Your task to perform on an android device: snooze an email in the gmail app Image 0: 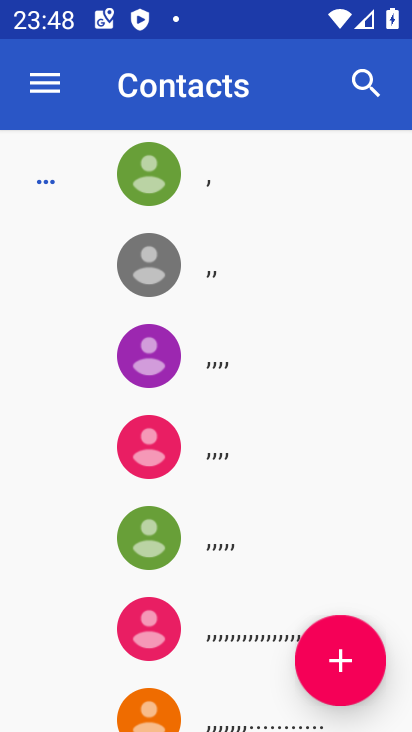
Step 0: press home button
Your task to perform on an android device: snooze an email in the gmail app Image 1: 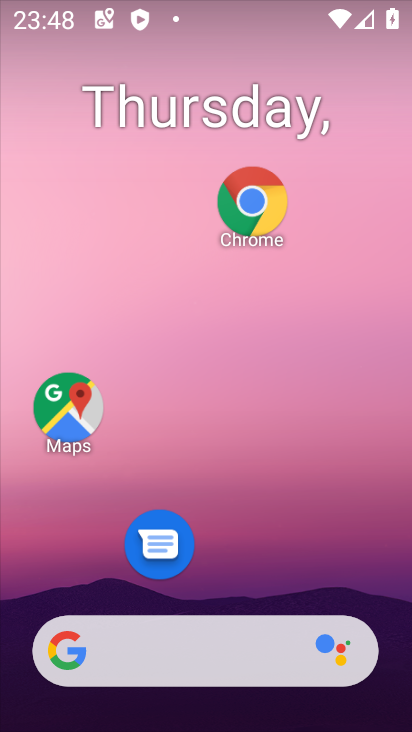
Step 1: drag from (226, 588) to (268, 49)
Your task to perform on an android device: snooze an email in the gmail app Image 2: 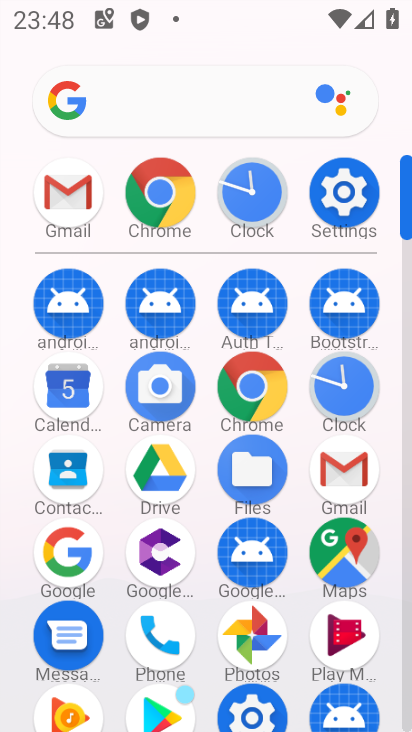
Step 2: click (346, 457)
Your task to perform on an android device: snooze an email in the gmail app Image 3: 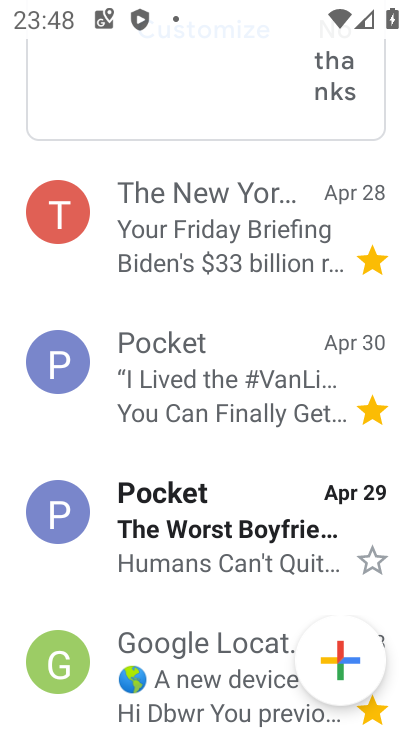
Step 3: click (47, 519)
Your task to perform on an android device: snooze an email in the gmail app Image 4: 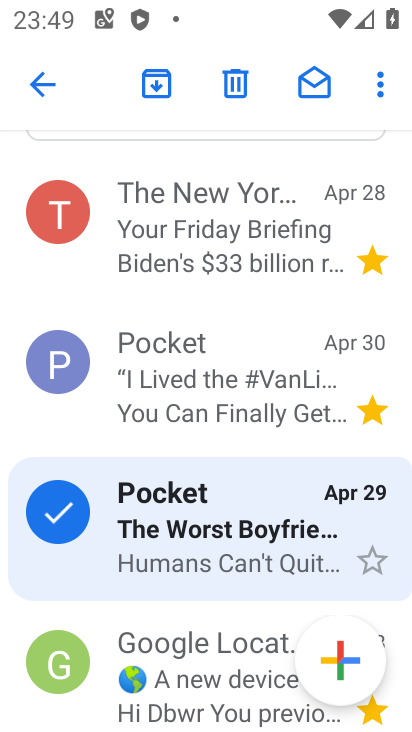
Step 4: click (377, 71)
Your task to perform on an android device: snooze an email in the gmail app Image 5: 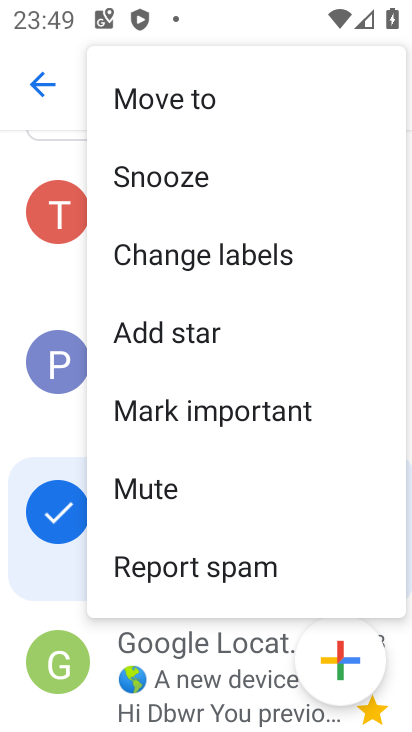
Step 5: click (207, 172)
Your task to perform on an android device: snooze an email in the gmail app Image 6: 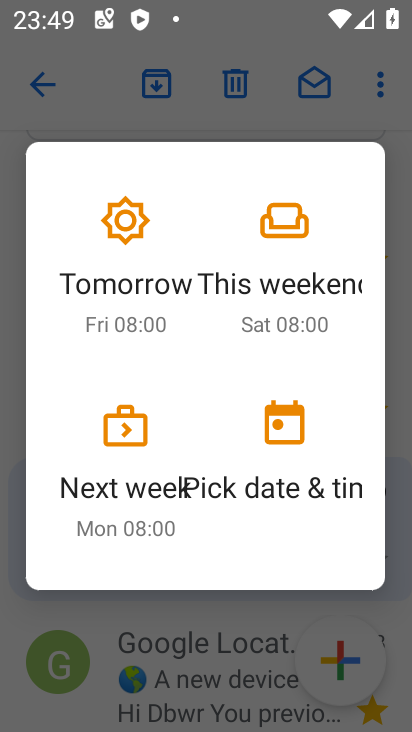
Step 6: click (293, 250)
Your task to perform on an android device: snooze an email in the gmail app Image 7: 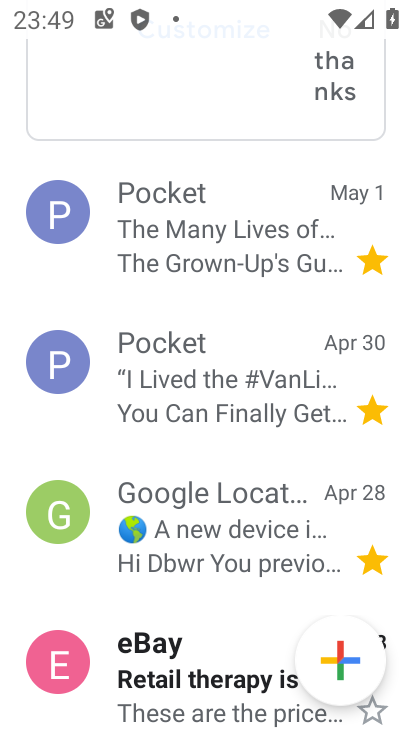
Step 7: task complete